Your task to perform on an android device: toggle airplane mode Image 0: 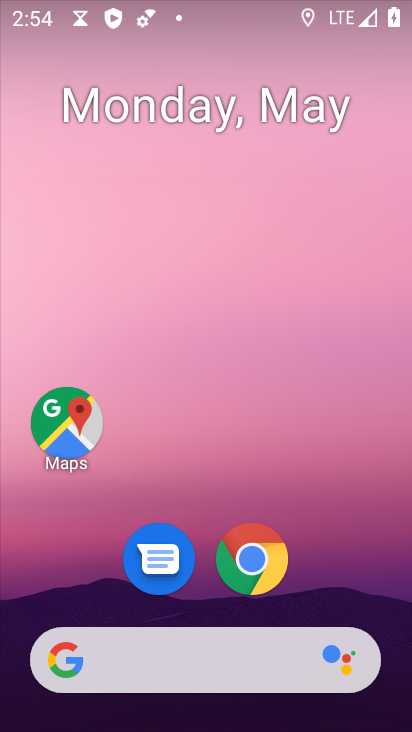
Step 0: drag from (331, 592) to (324, 28)
Your task to perform on an android device: toggle airplane mode Image 1: 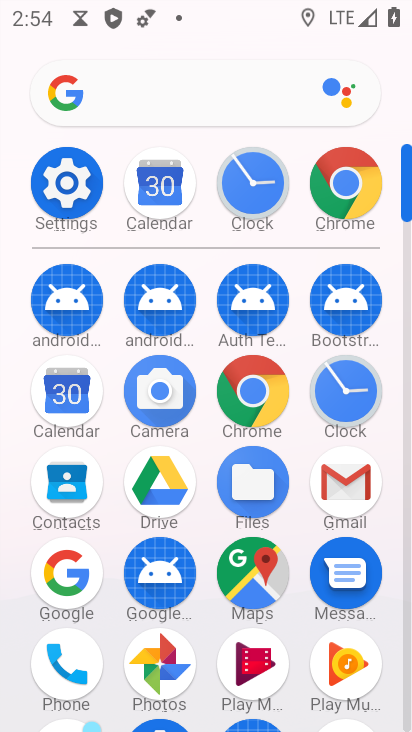
Step 1: click (66, 171)
Your task to perform on an android device: toggle airplane mode Image 2: 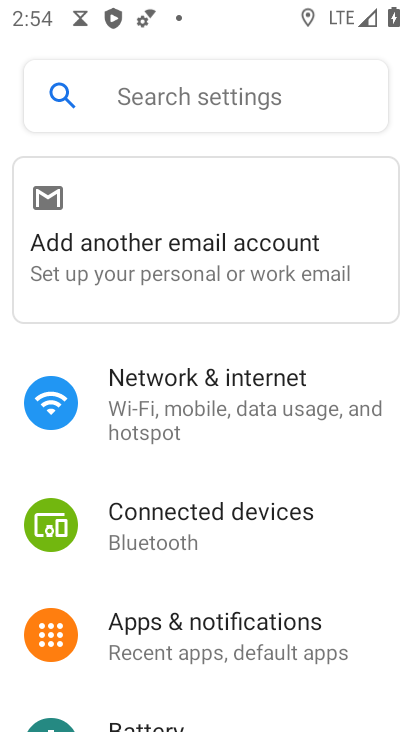
Step 2: click (186, 405)
Your task to perform on an android device: toggle airplane mode Image 3: 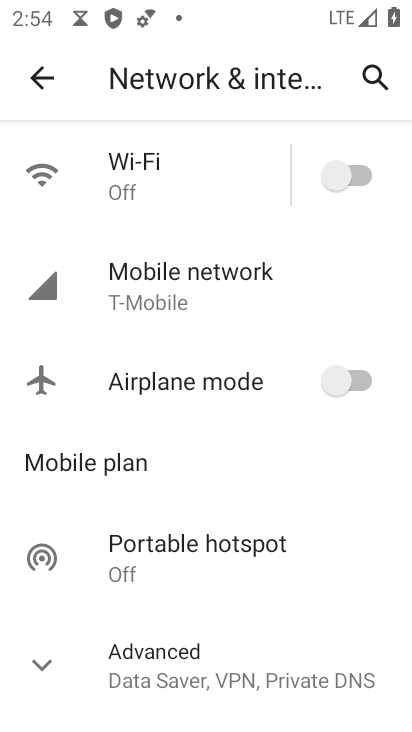
Step 3: click (348, 378)
Your task to perform on an android device: toggle airplane mode Image 4: 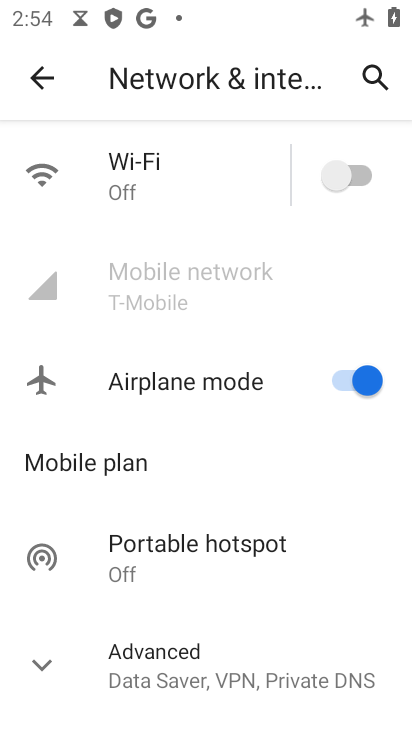
Step 4: task complete